Your task to perform on an android device: Search for Mexican restaurants on Maps Image 0: 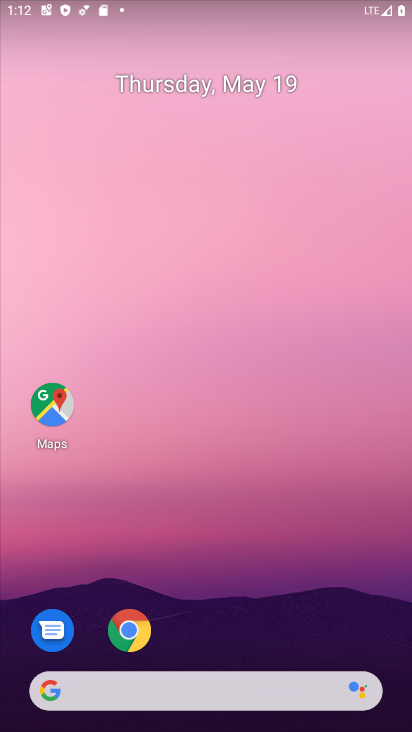
Step 0: drag from (247, 658) to (216, 43)
Your task to perform on an android device: Search for Mexican restaurants on Maps Image 1: 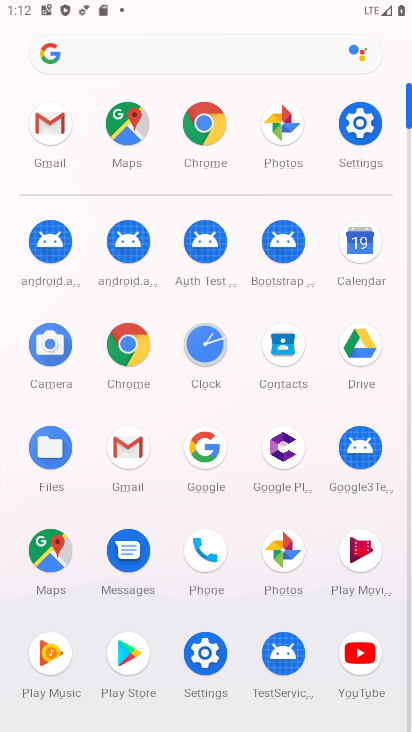
Step 1: click (54, 541)
Your task to perform on an android device: Search for Mexican restaurants on Maps Image 2: 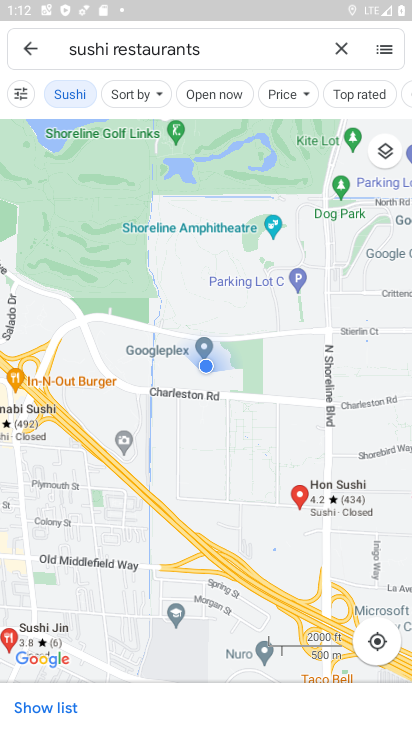
Step 2: click (335, 47)
Your task to perform on an android device: Search for Mexican restaurants on Maps Image 3: 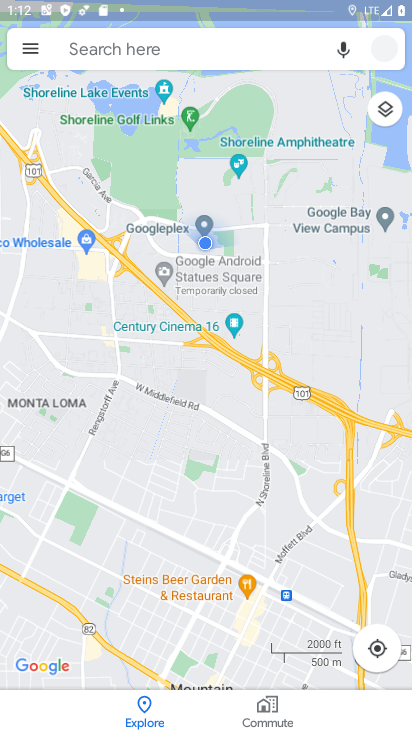
Step 3: click (202, 51)
Your task to perform on an android device: Search for Mexican restaurants on Maps Image 4: 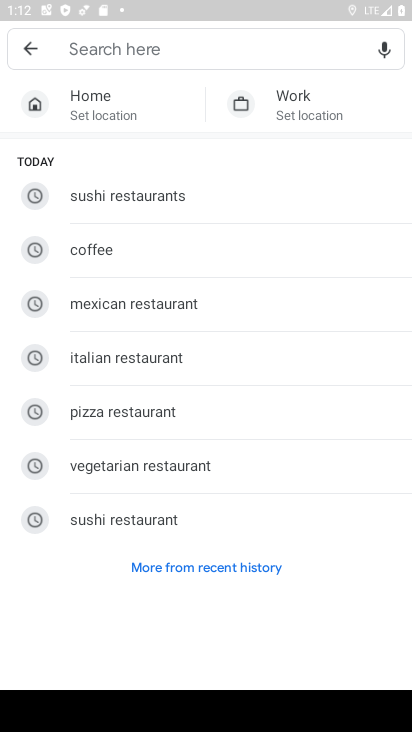
Step 4: click (136, 299)
Your task to perform on an android device: Search for Mexican restaurants on Maps Image 5: 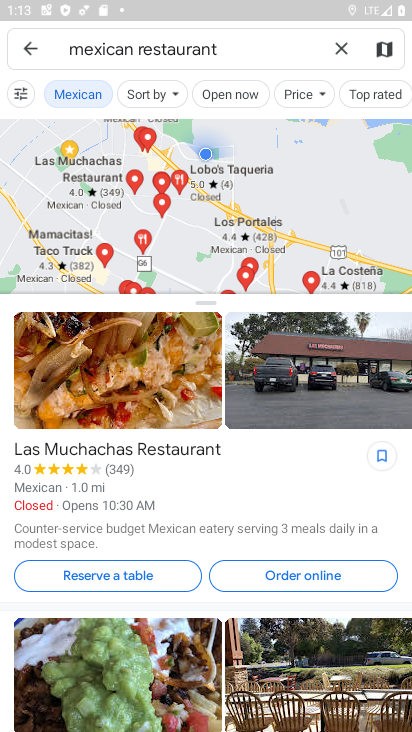
Step 5: task complete